Your task to perform on an android device: turn on translation in the chrome app Image 0: 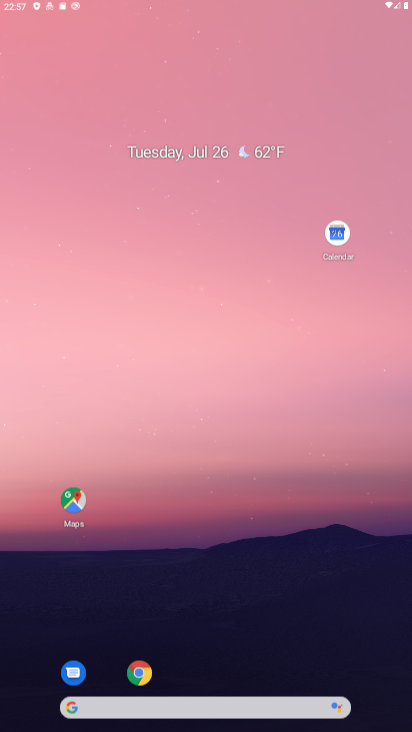
Step 0: click (258, 142)
Your task to perform on an android device: turn on translation in the chrome app Image 1: 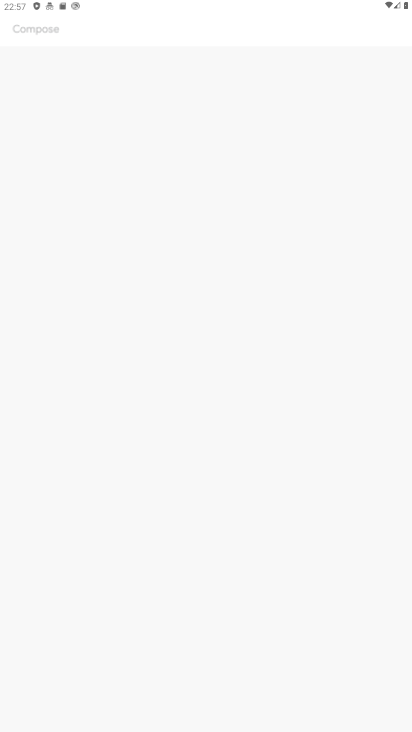
Step 1: drag from (248, 546) to (221, 126)
Your task to perform on an android device: turn on translation in the chrome app Image 2: 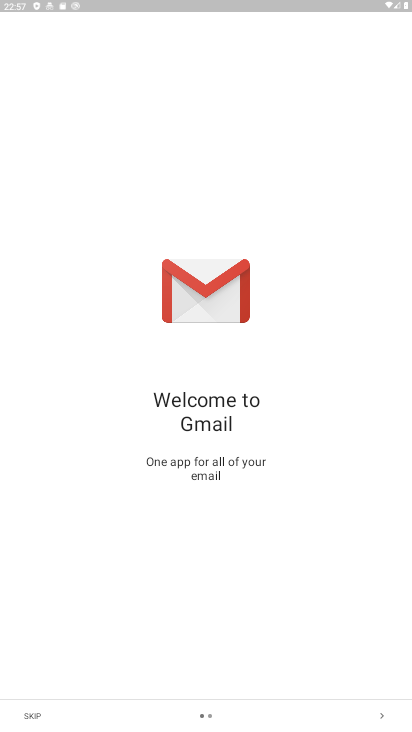
Step 2: drag from (219, 494) to (216, 151)
Your task to perform on an android device: turn on translation in the chrome app Image 3: 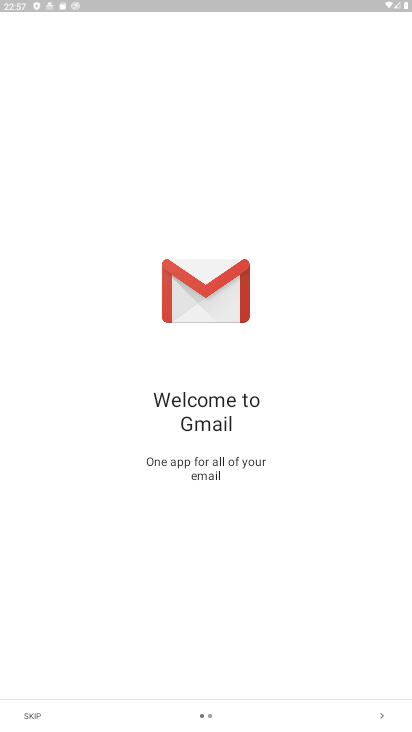
Step 3: press back button
Your task to perform on an android device: turn on translation in the chrome app Image 4: 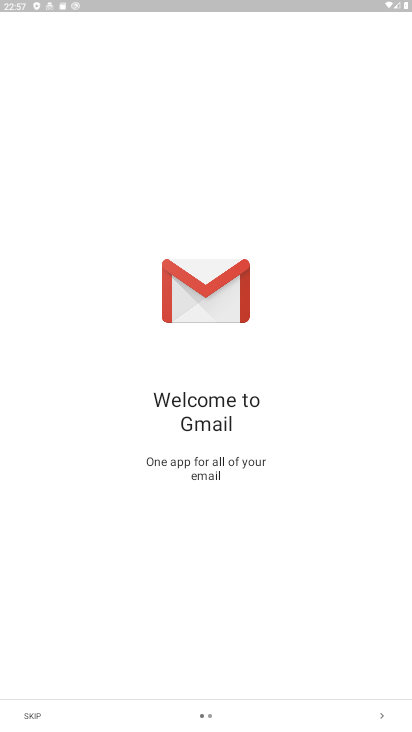
Step 4: press back button
Your task to perform on an android device: turn on translation in the chrome app Image 5: 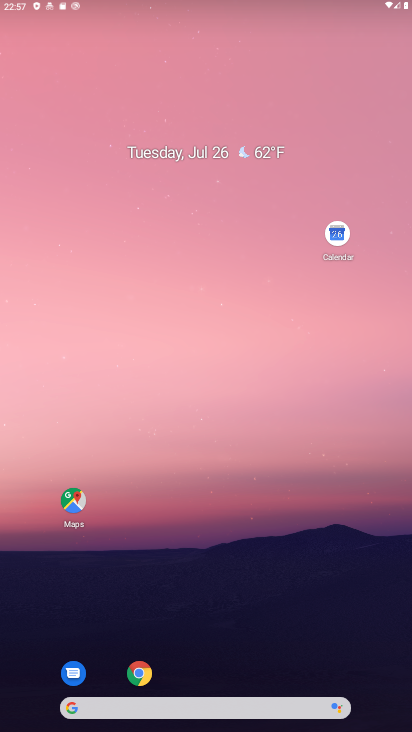
Step 5: press back button
Your task to perform on an android device: turn on translation in the chrome app Image 6: 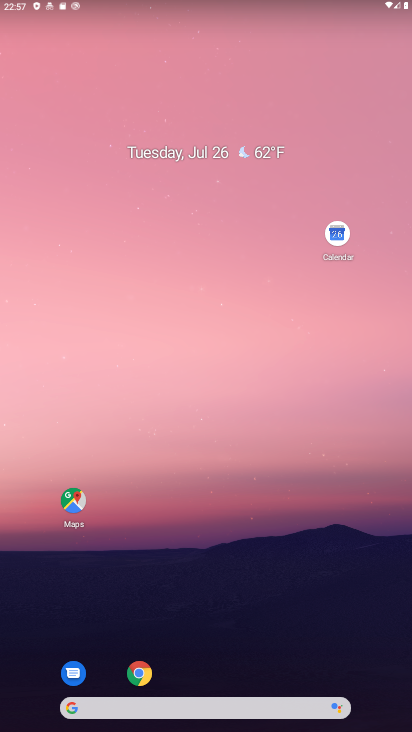
Step 6: drag from (244, 668) to (192, 210)
Your task to perform on an android device: turn on translation in the chrome app Image 7: 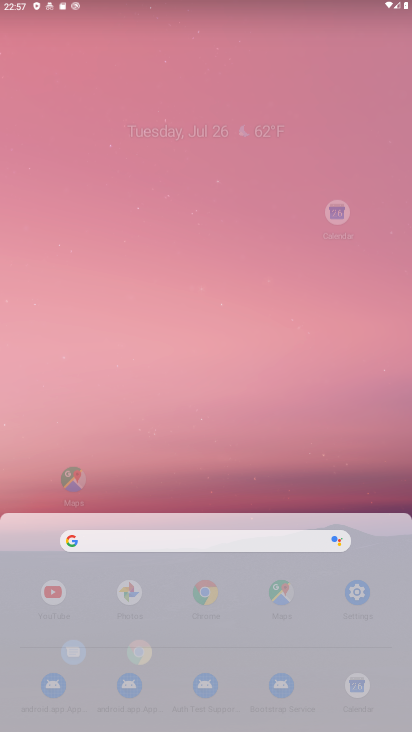
Step 7: drag from (277, 592) to (257, 222)
Your task to perform on an android device: turn on translation in the chrome app Image 8: 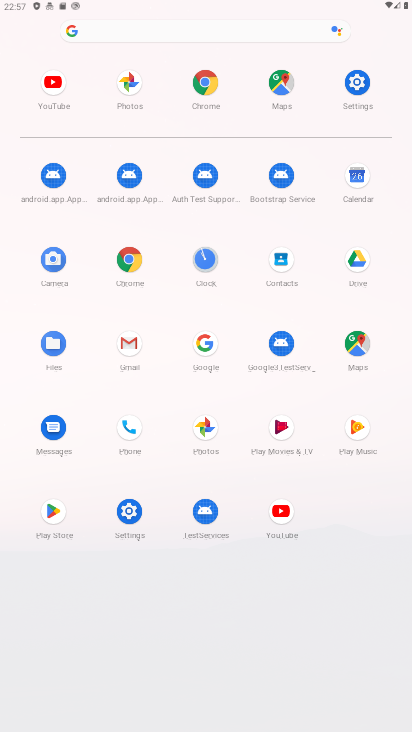
Step 8: drag from (278, 504) to (244, 216)
Your task to perform on an android device: turn on translation in the chrome app Image 9: 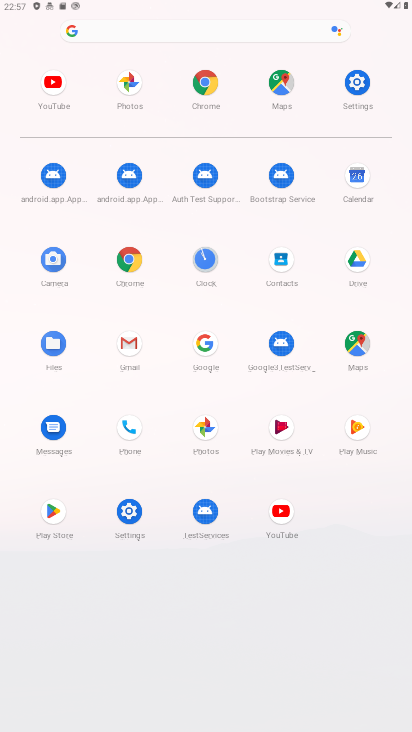
Step 9: click (128, 255)
Your task to perform on an android device: turn on translation in the chrome app Image 10: 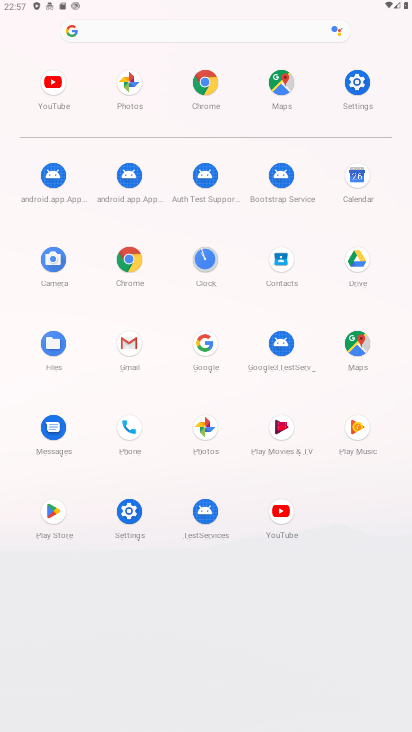
Step 10: click (127, 254)
Your task to perform on an android device: turn on translation in the chrome app Image 11: 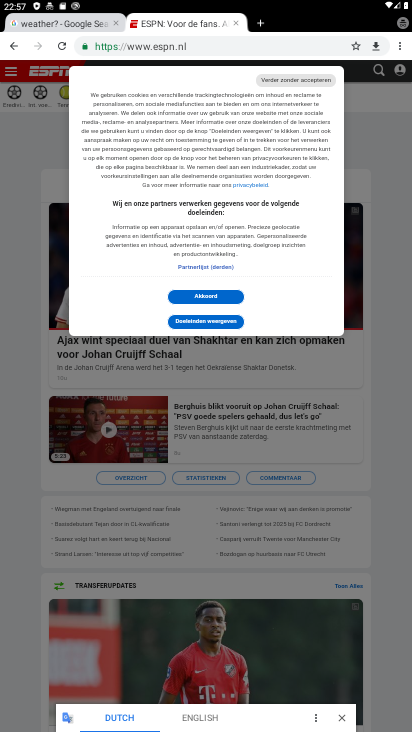
Step 11: drag from (400, 44) to (319, 303)
Your task to perform on an android device: turn on translation in the chrome app Image 12: 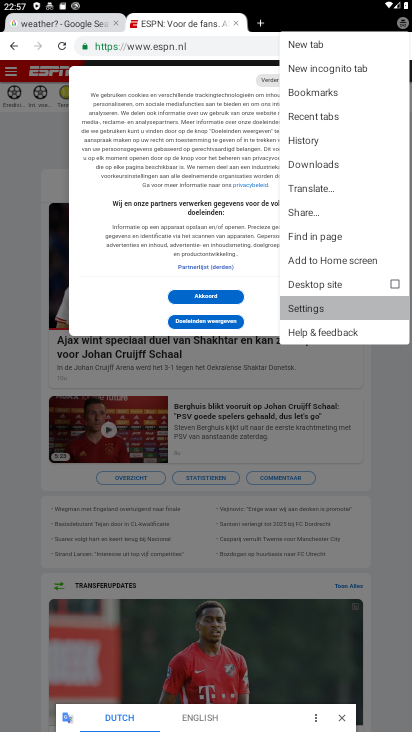
Step 12: click (318, 304)
Your task to perform on an android device: turn on translation in the chrome app Image 13: 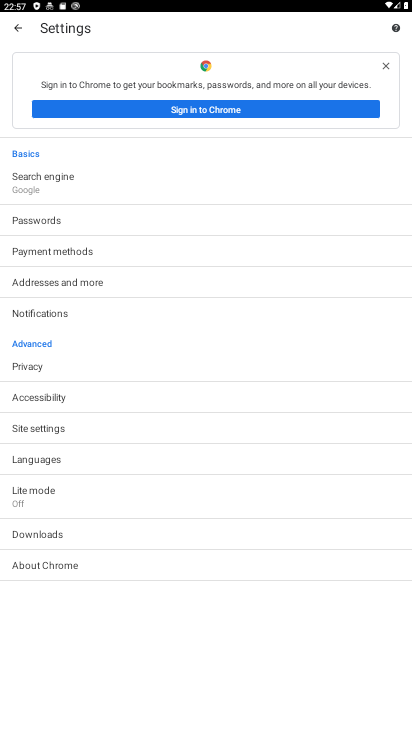
Step 13: click (41, 456)
Your task to perform on an android device: turn on translation in the chrome app Image 14: 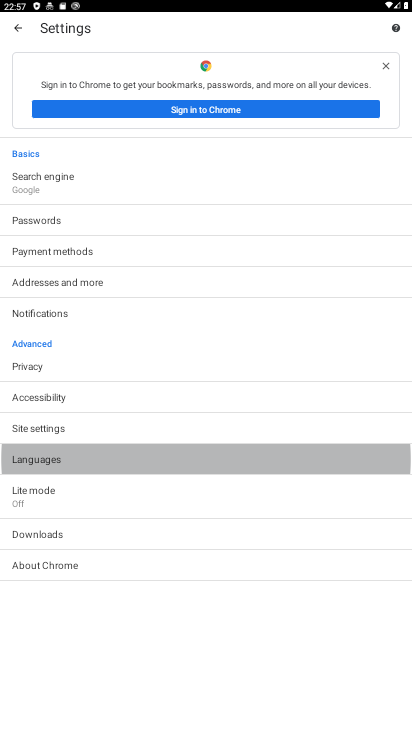
Step 14: click (41, 456)
Your task to perform on an android device: turn on translation in the chrome app Image 15: 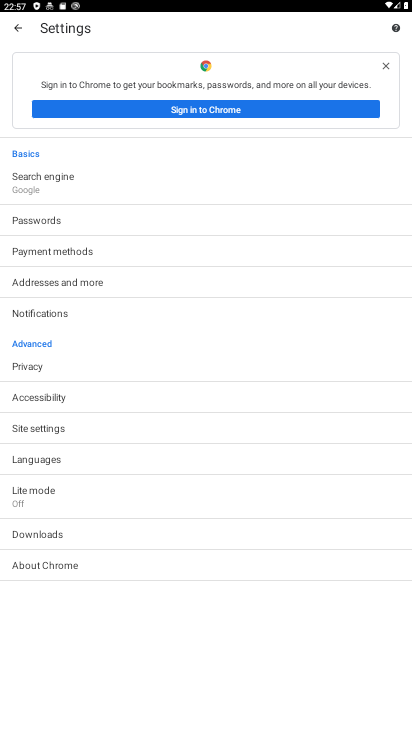
Step 15: click (41, 456)
Your task to perform on an android device: turn on translation in the chrome app Image 16: 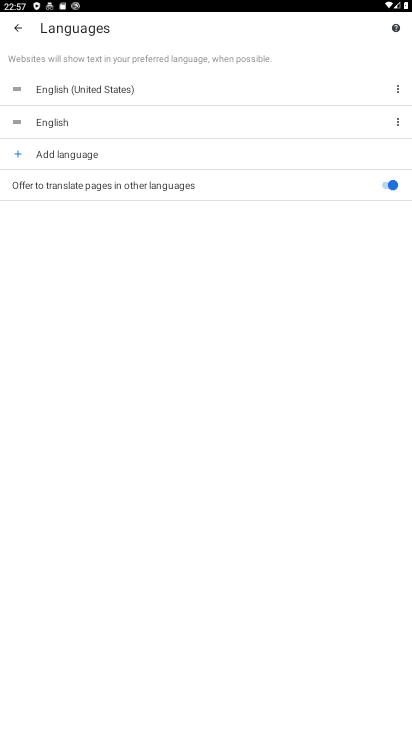
Step 16: click (393, 183)
Your task to perform on an android device: turn on translation in the chrome app Image 17: 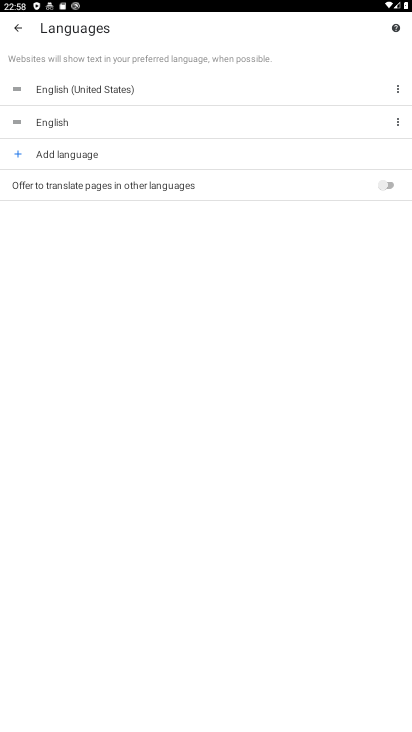
Step 17: click (393, 183)
Your task to perform on an android device: turn on translation in the chrome app Image 18: 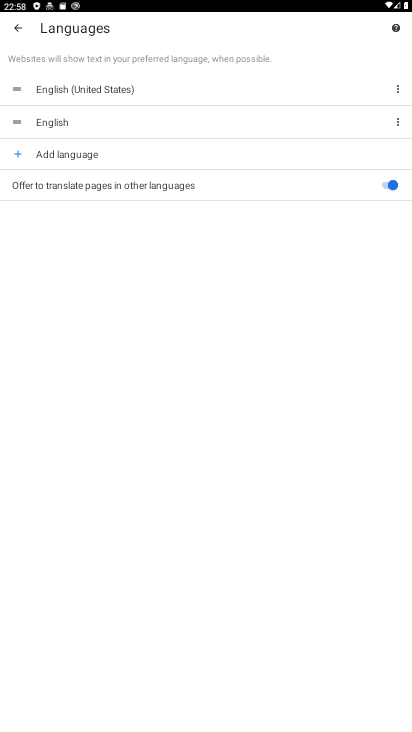
Step 18: task complete